Your task to perform on an android device: What's on my calendar today? Image 0: 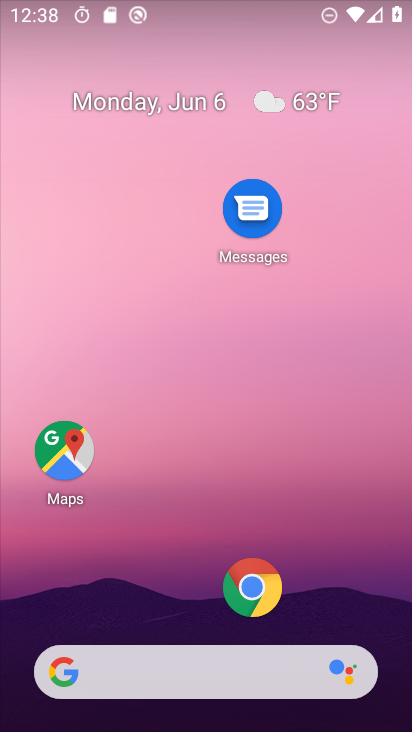
Step 0: click (151, 90)
Your task to perform on an android device: What's on my calendar today? Image 1: 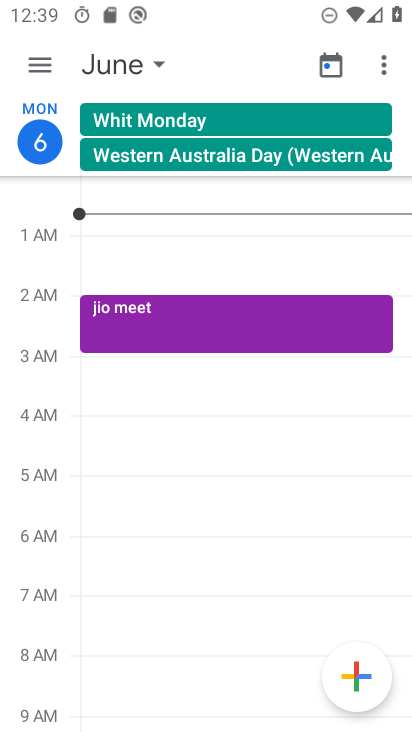
Step 1: task complete